Your task to perform on an android device: What's on my calendar tomorrow? Image 0: 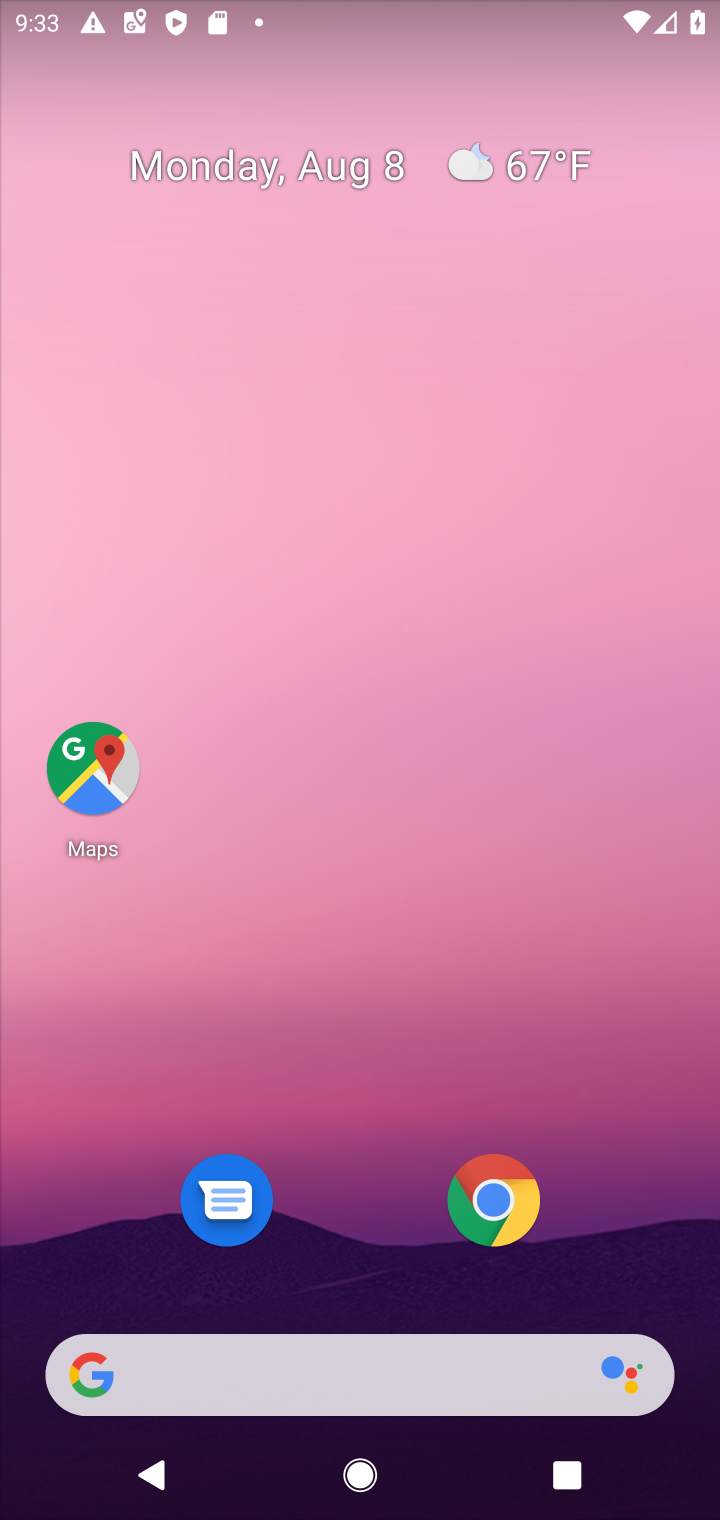
Step 0: press home button
Your task to perform on an android device: What's on my calendar tomorrow? Image 1: 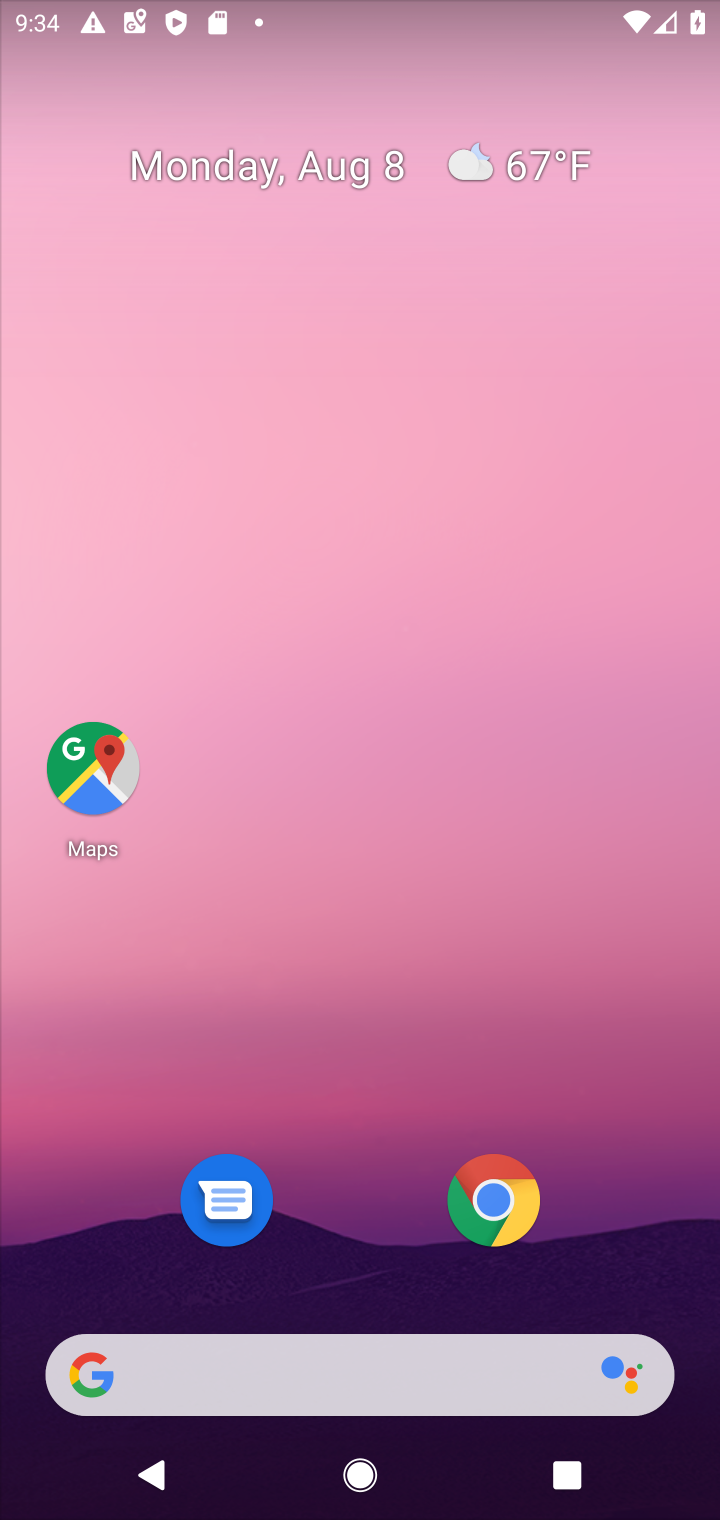
Step 1: drag from (298, 1296) to (569, 330)
Your task to perform on an android device: What's on my calendar tomorrow? Image 2: 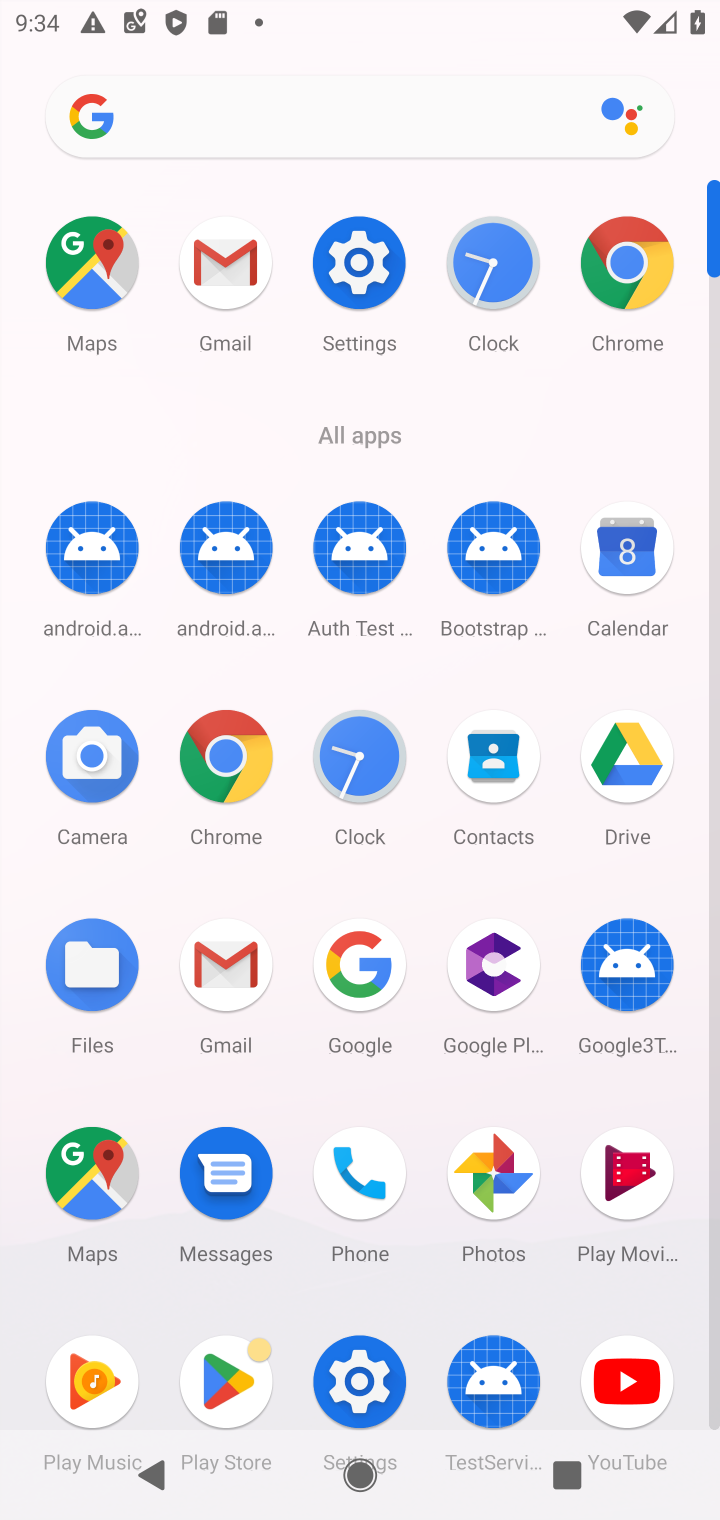
Step 2: click (612, 554)
Your task to perform on an android device: What's on my calendar tomorrow? Image 3: 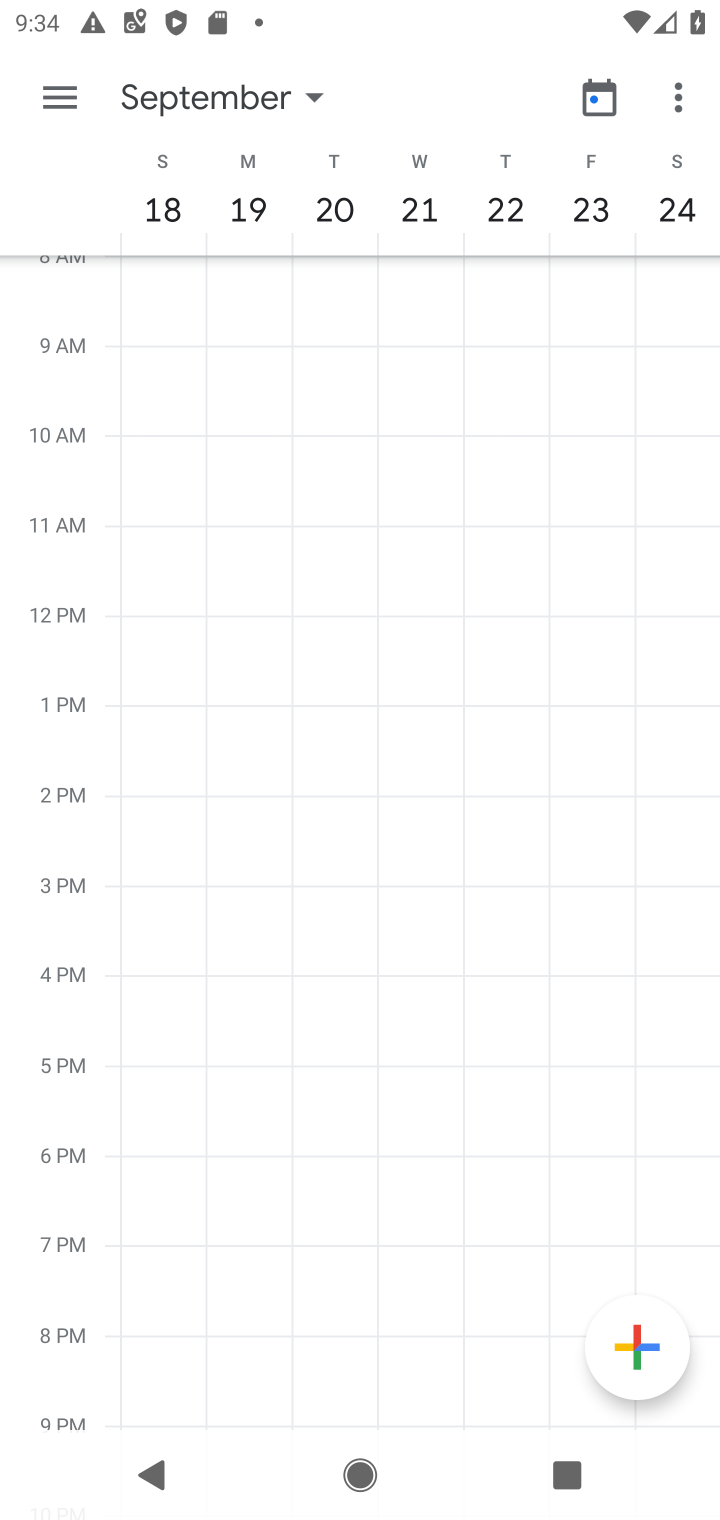
Step 3: click (197, 97)
Your task to perform on an android device: What's on my calendar tomorrow? Image 4: 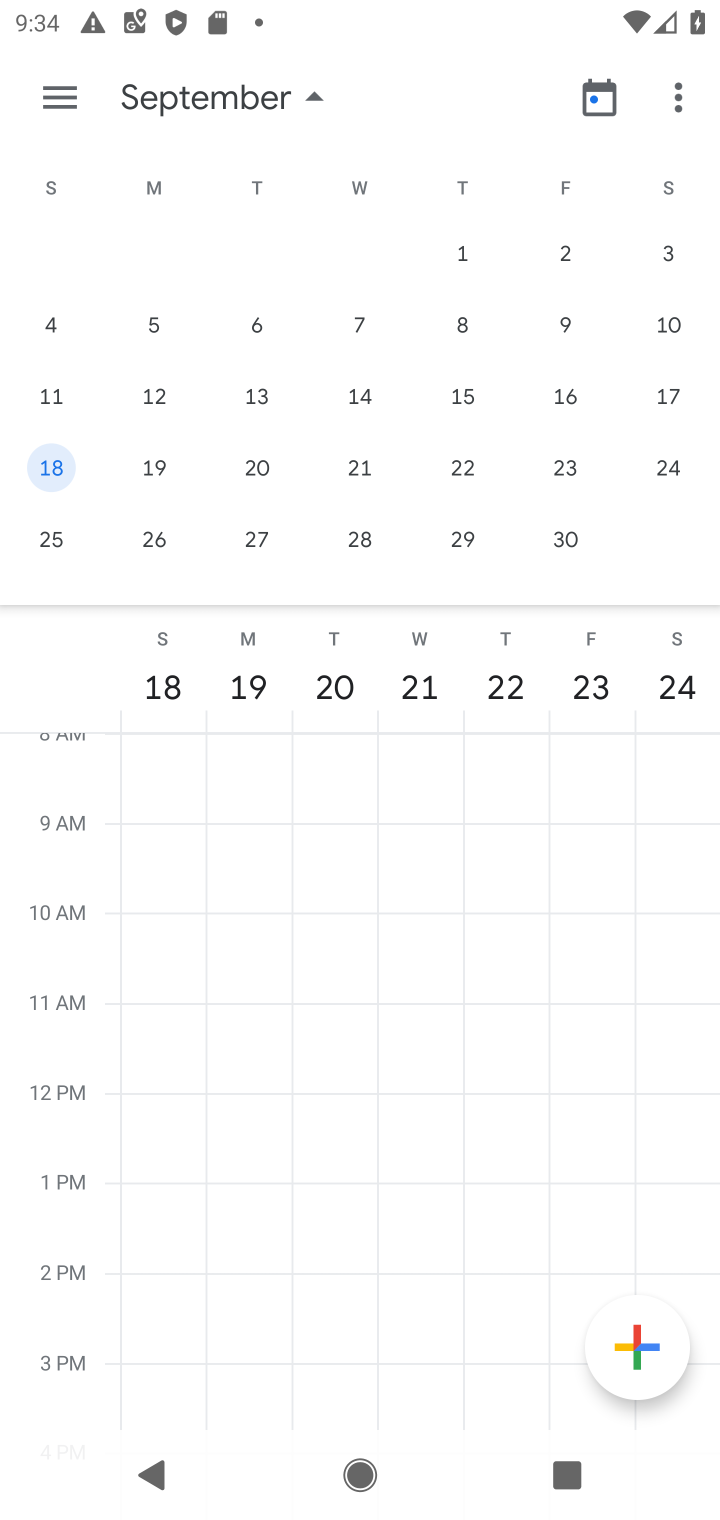
Step 4: drag from (194, 400) to (709, 464)
Your task to perform on an android device: What's on my calendar tomorrow? Image 5: 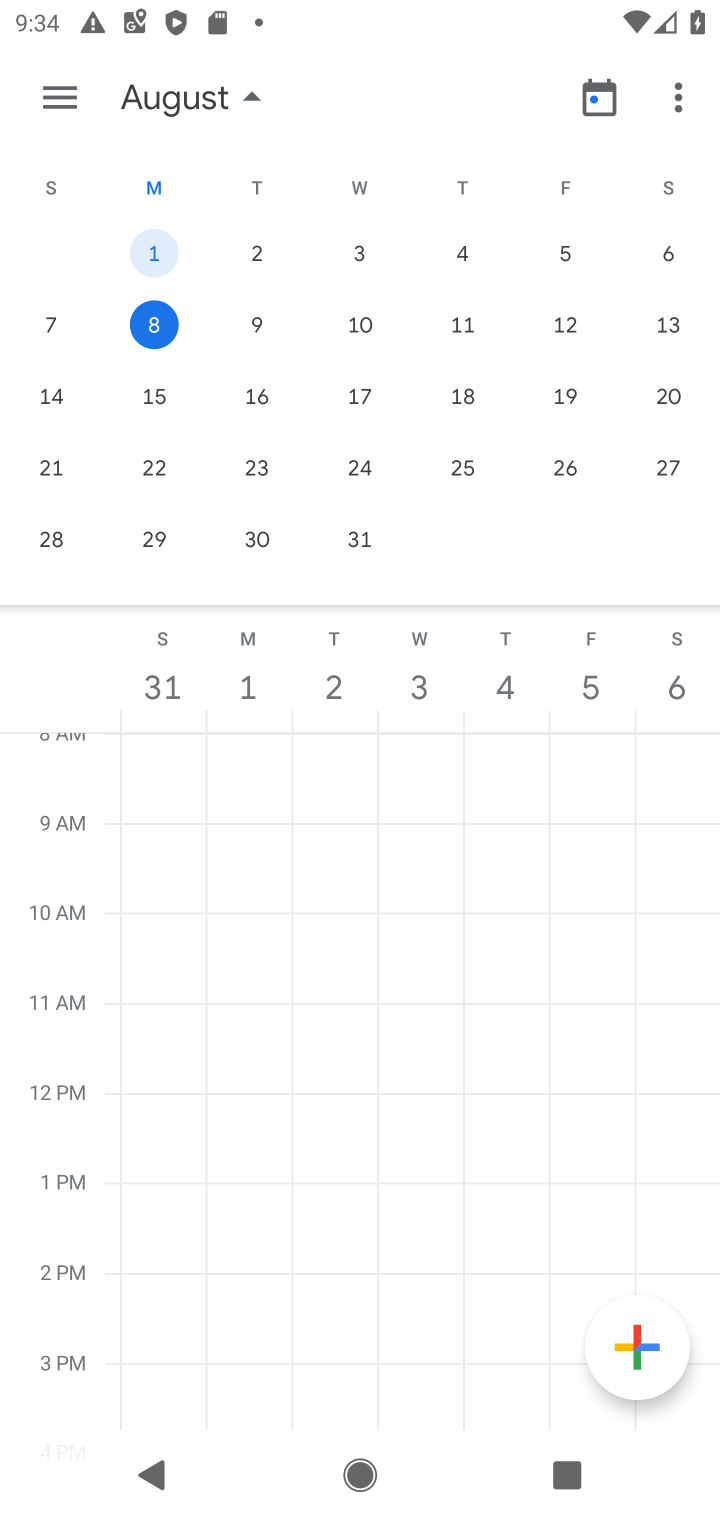
Step 5: click (251, 320)
Your task to perform on an android device: What's on my calendar tomorrow? Image 6: 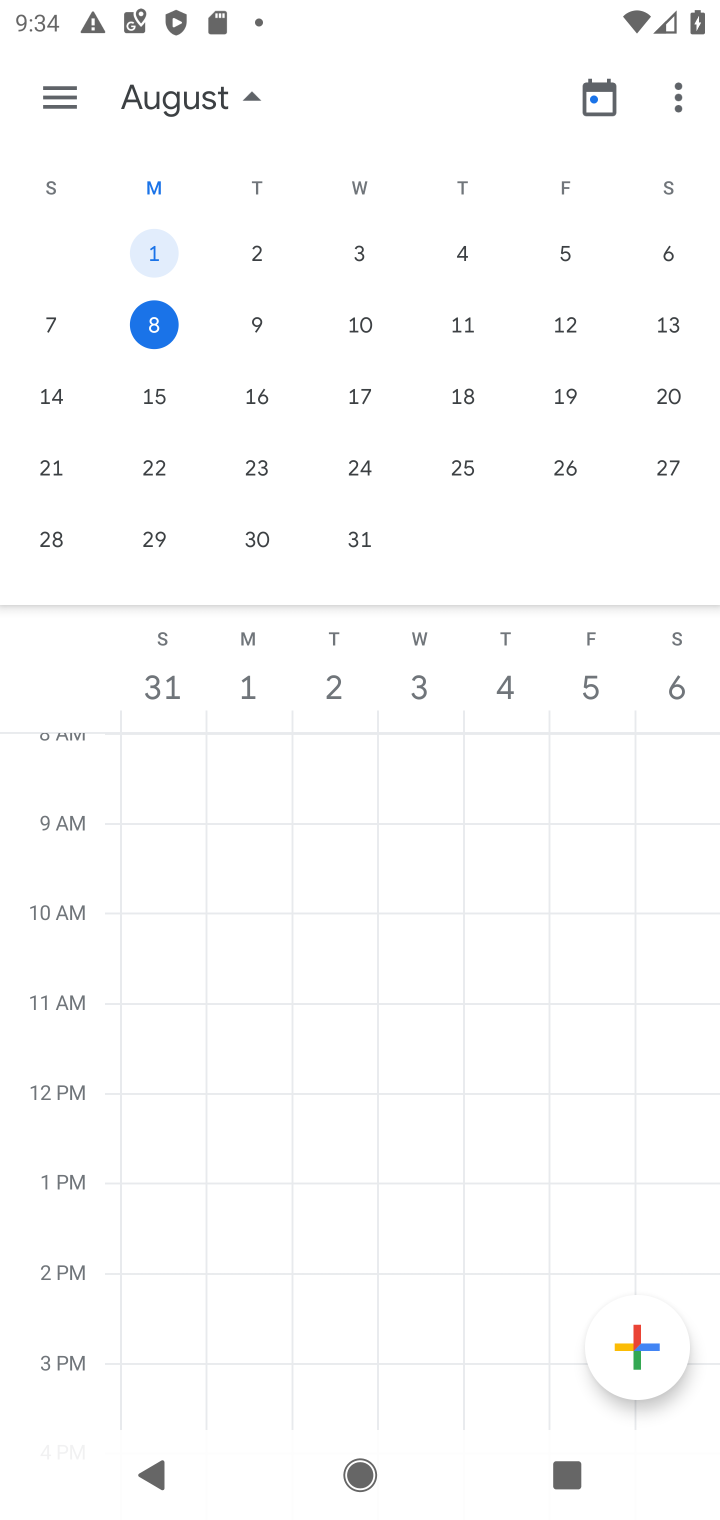
Step 6: click (262, 318)
Your task to perform on an android device: What's on my calendar tomorrow? Image 7: 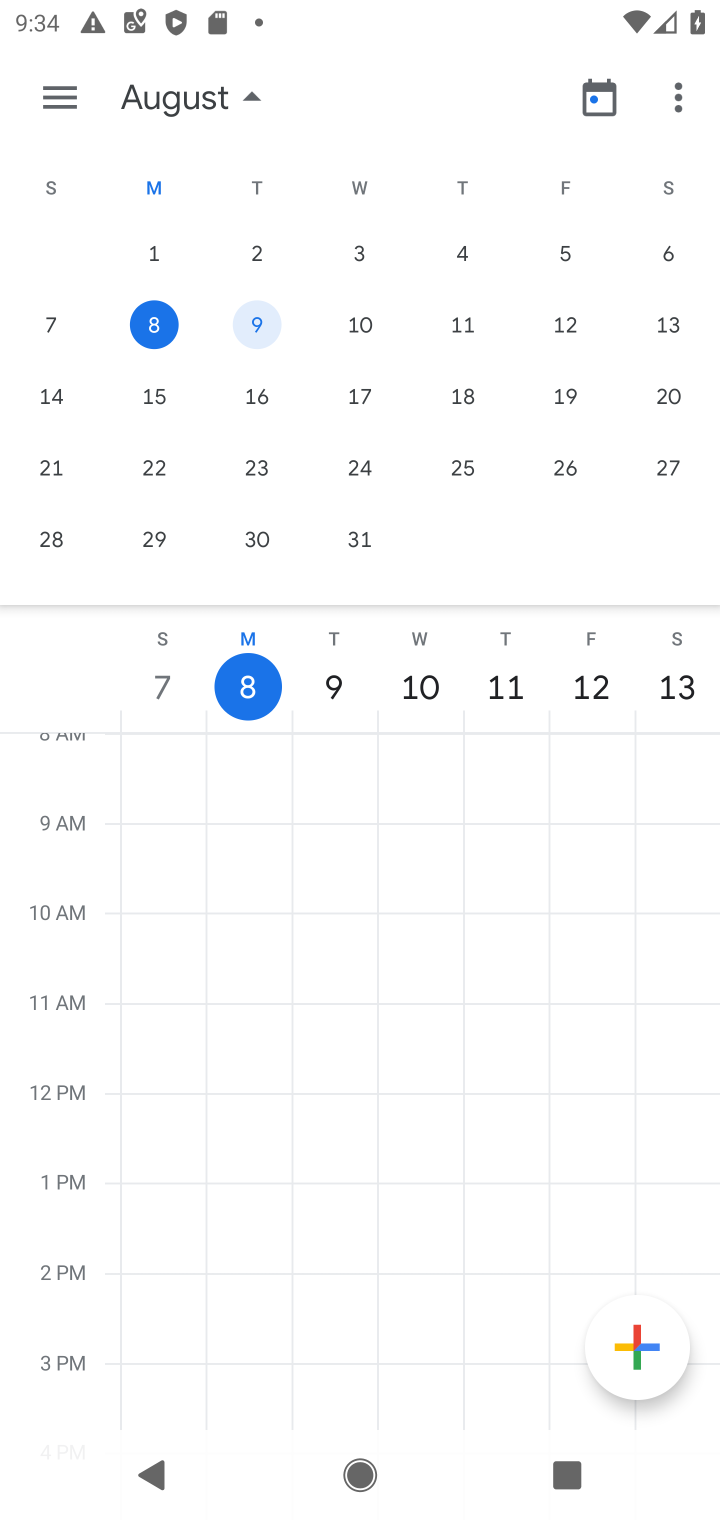
Step 7: click (58, 80)
Your task to perform on an android device: What's on my calendar tomorrow? Image 8: 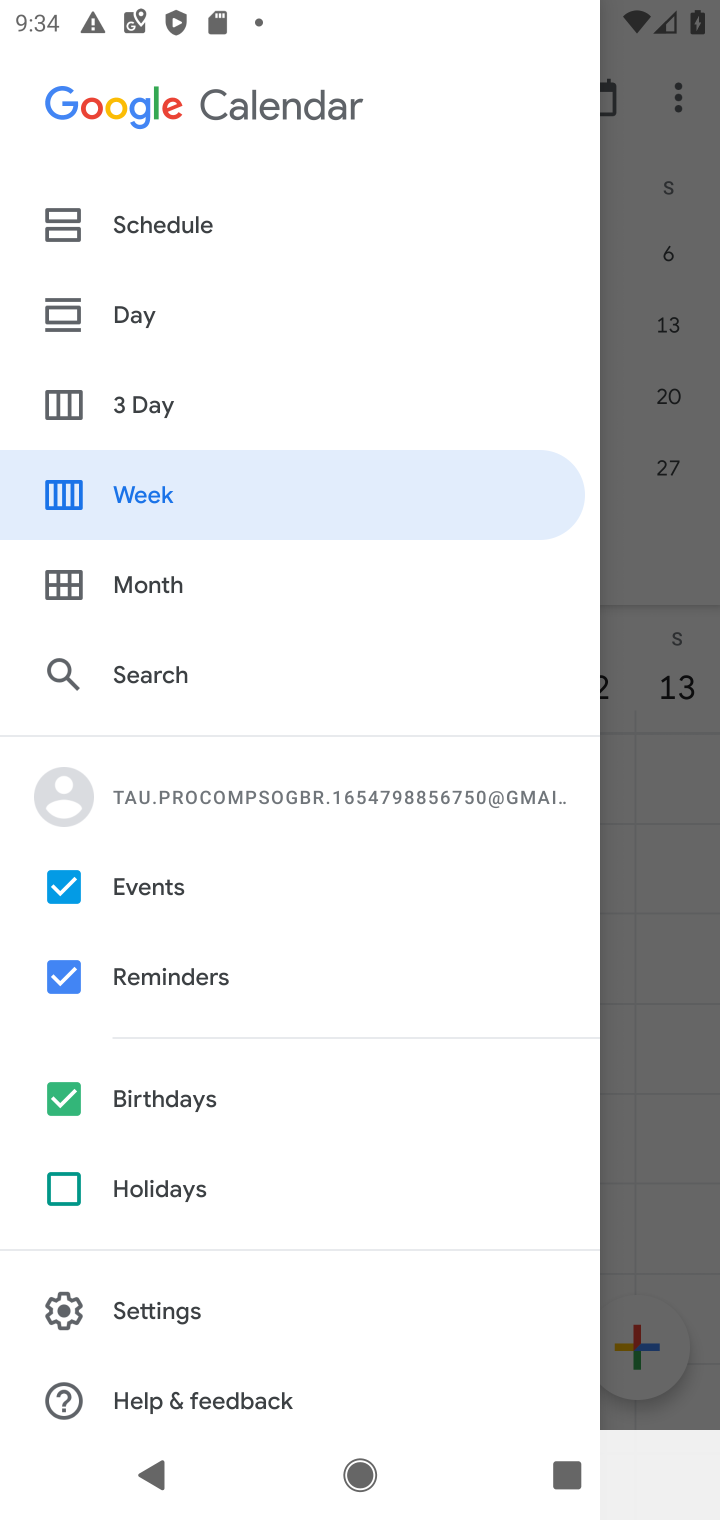
Step 8: click (157, 316)
Your task to perform on an android device: What's on my calendar tomorrow? Image 9: 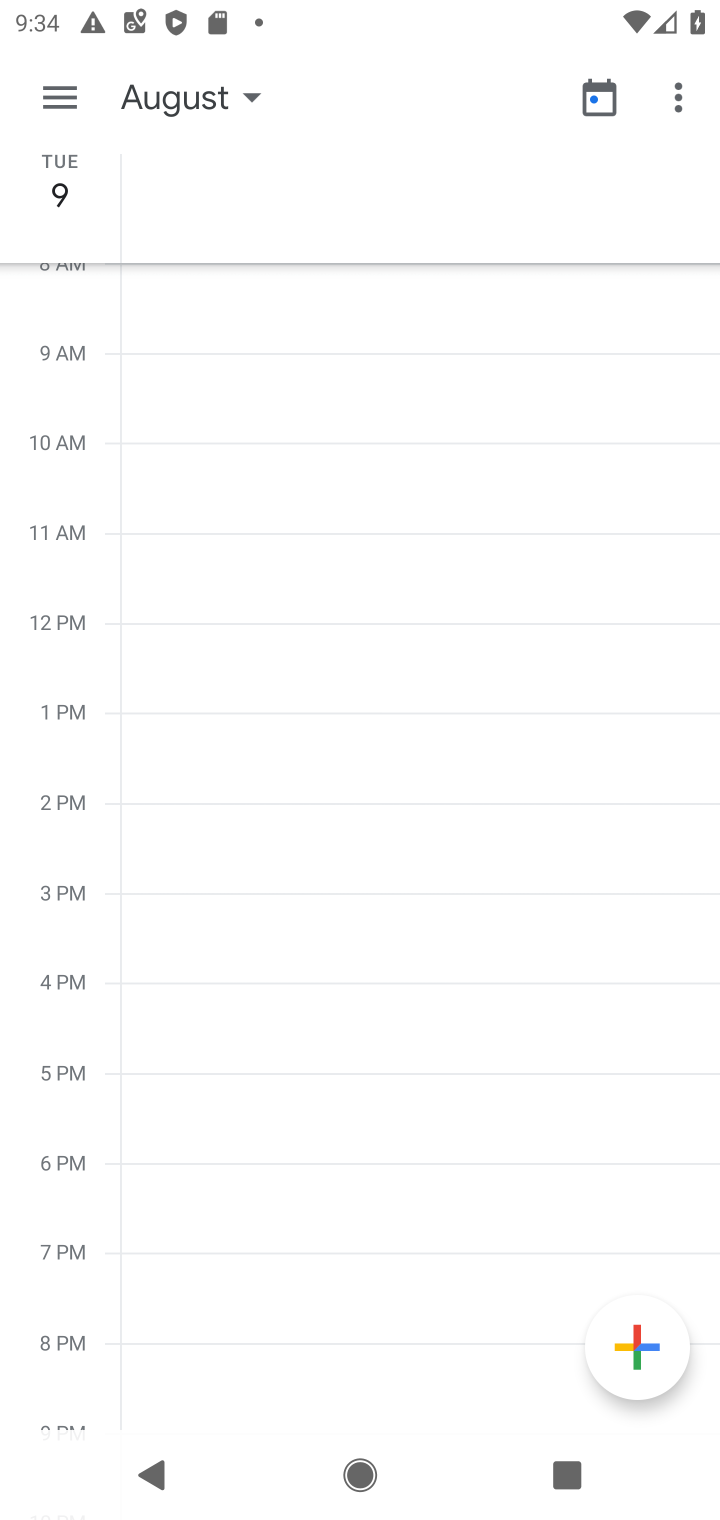
Step 9: click (71, 88)
Your task to perform on an android device: What's on my calendar tomorrow? Image 10: 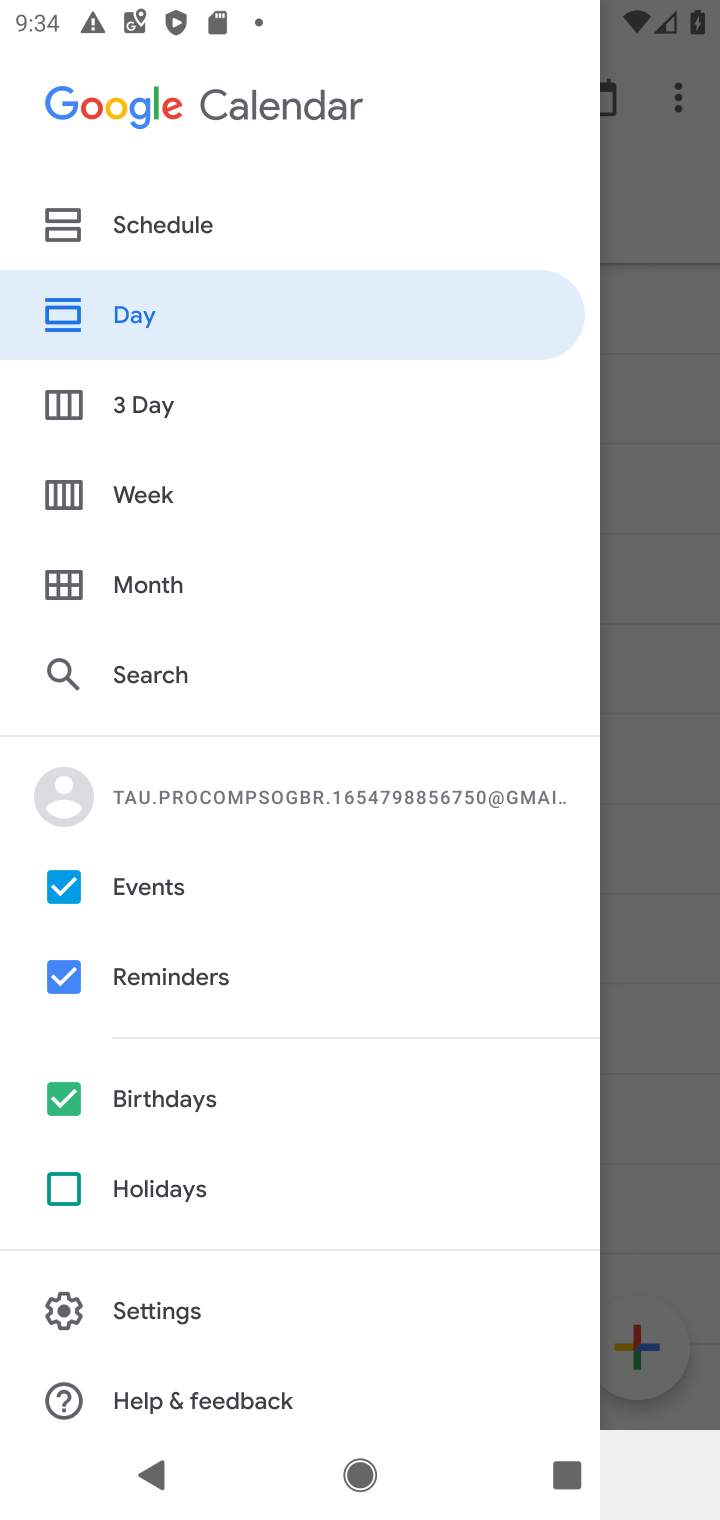
Step 10: click (119, 208)
Your task to perform on an android device: What's on my calendar tomorrow? Image 11: 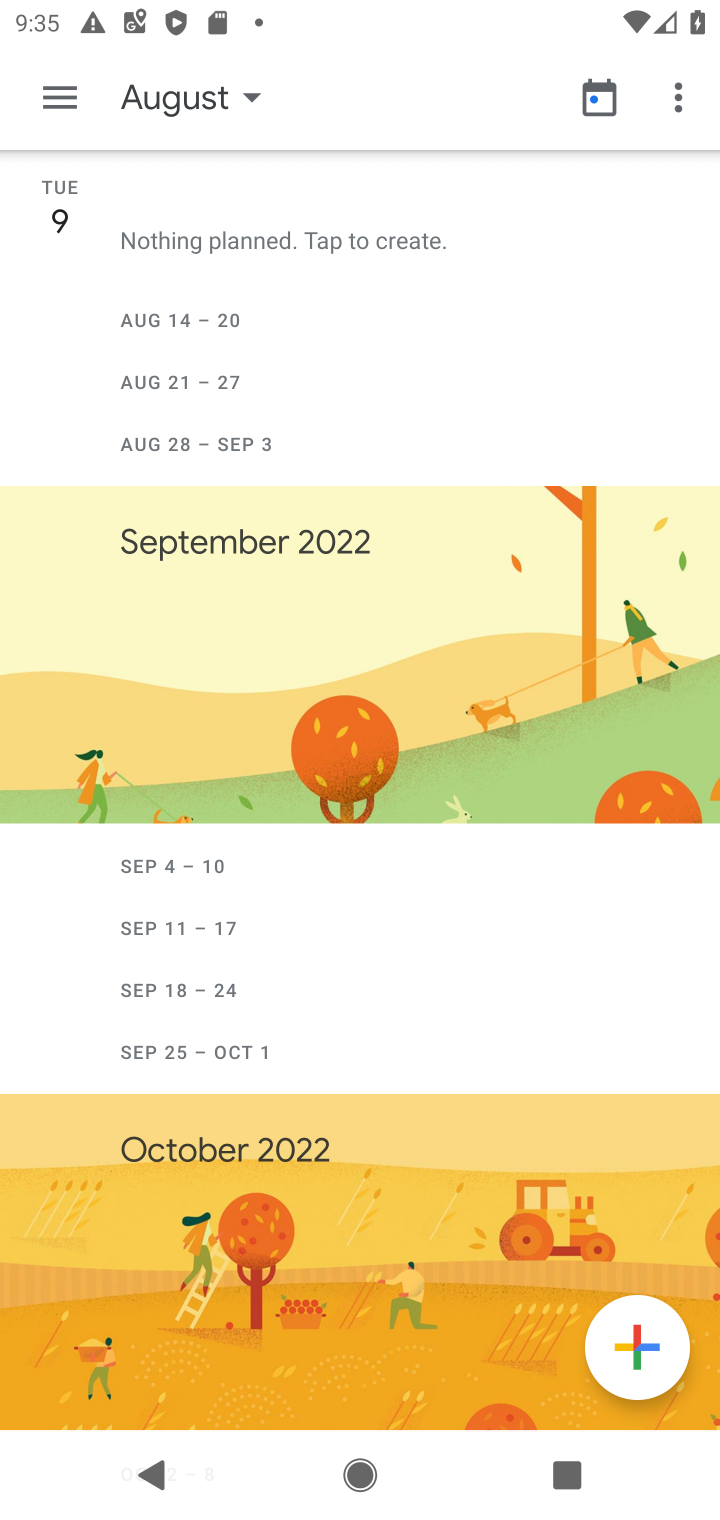
Step 11: task complete